Your task to perform on an android device: delete browsing data in the chrome app Image 0: 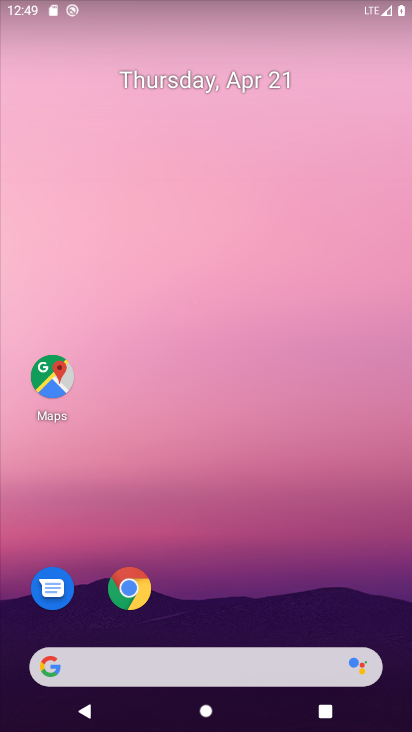
Step 0: click (127, 582)
Your task to perform on an android device: delete browsing data in the chrome app Image 1: 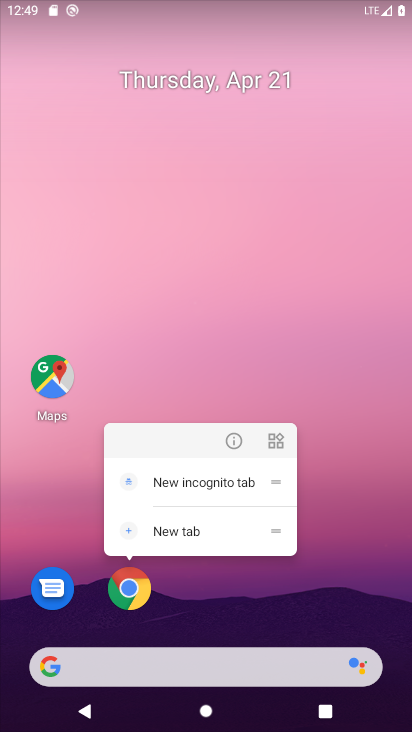
Step 1: click (175, 597)
Your task to perform on an android device: delete browsing data in the chrome app Image 2: 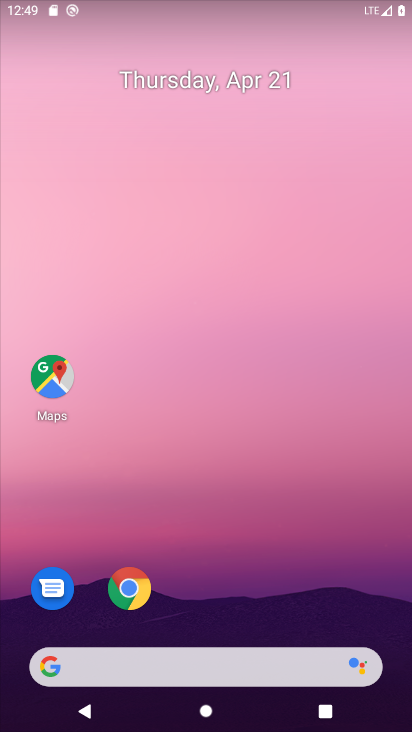
Step 2: click (126, 583)
Your task to perform on an android device: delete browsing data in the chrome app Image 3: 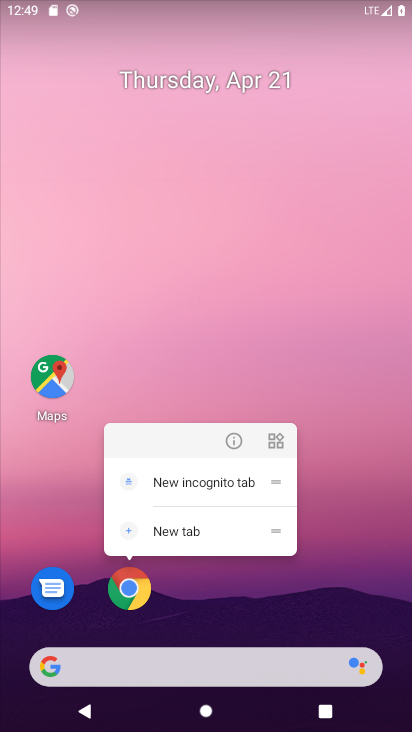
Step 3: click (187, 604)
Your task to perform on an android device: delete browsing data in the chrome app Image 4: 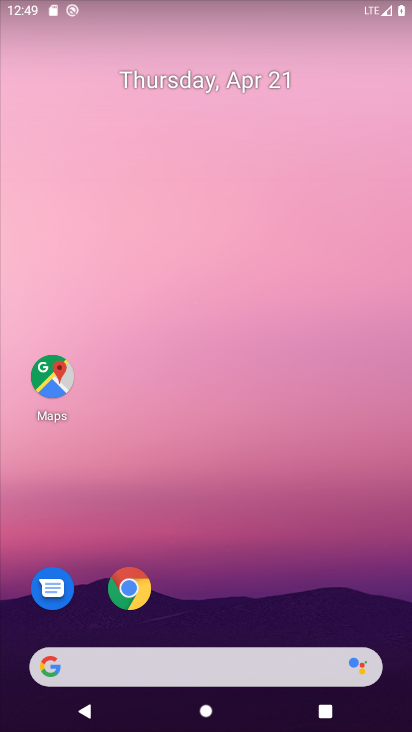
Step 4: click (365, 591)
Your task to perform on an android device: delete browsing data in the chrome app Image 5: 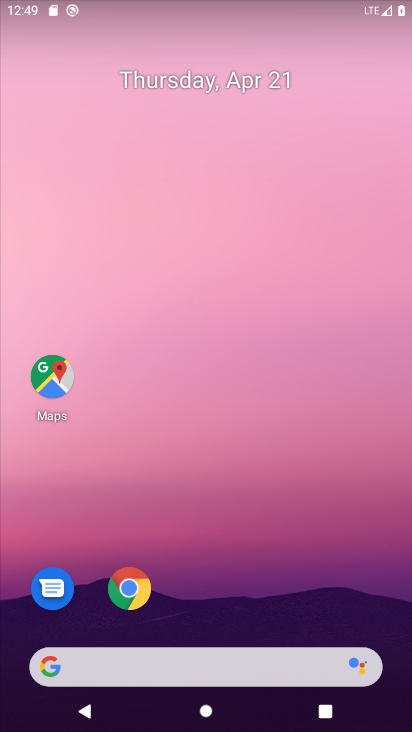
Step 5: click (127, 582)
Your task to perform on an android device: delete browsing data in the chrome app Image 6: 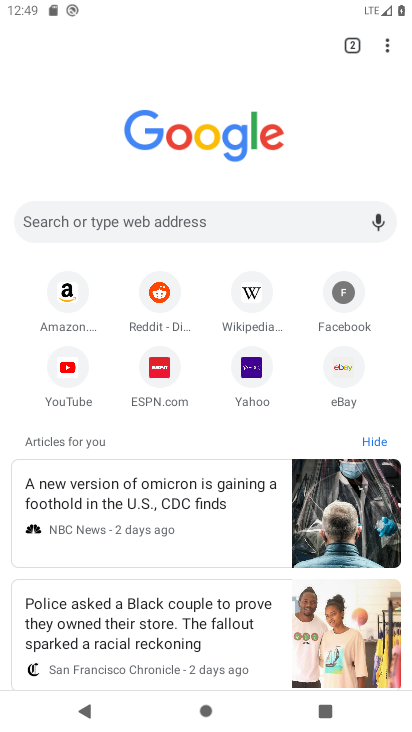
Step 6: click (387, 40)
Your task to perform on an android device: delete browsing data in the chrome app Image 7: 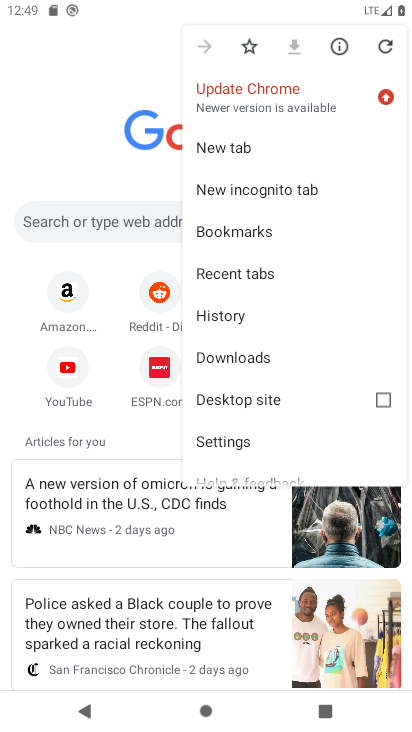
Step 7: click (257, 314)
Your task to perform on an android device: delete browsing data in the chrome app Image 8: 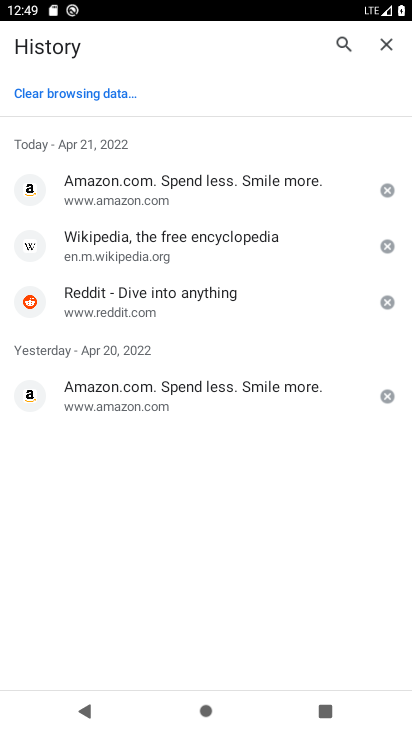
Step 8: click (71, 91)
Your task to perform on an android device: delete browsing data in the chrome app Image 9: 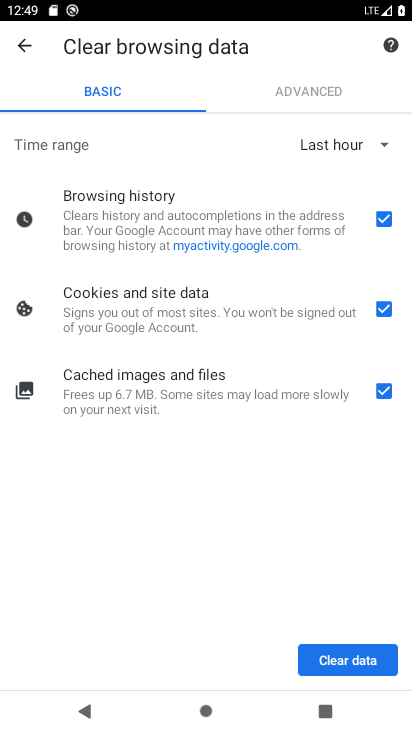
Step 9: click (350, 651)
Your task to perform on an android device: delete browsing data in the chrome app Image 10: 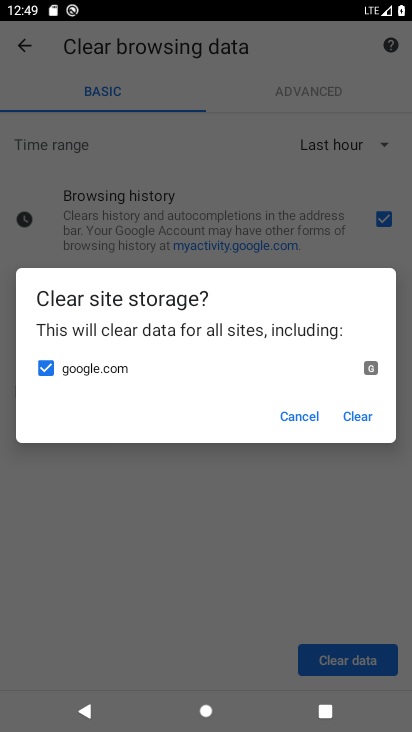
Step 10: click (363, 419)
Your task to perform on an android device: delete browsing data in the chrome app Image 11: 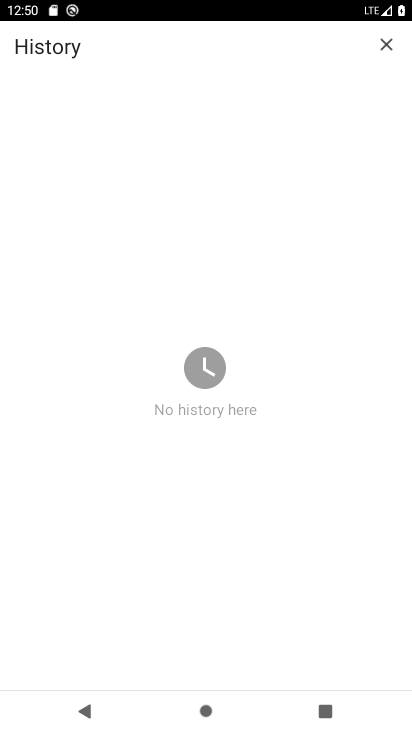
Step 11: task complete